Your task to perform on an android device: toggle location history Image 0: 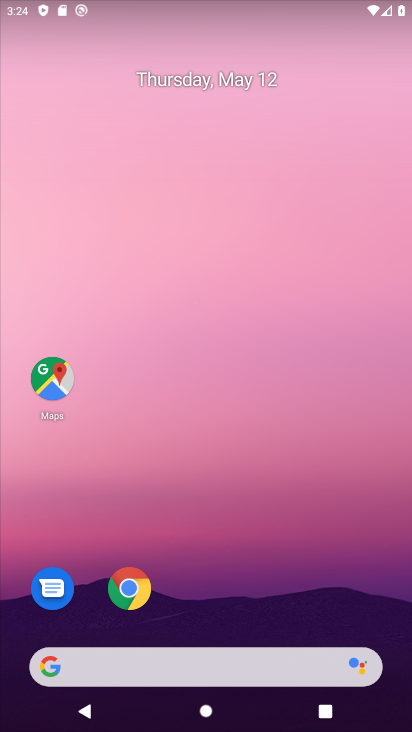
Step 0: drag from (248, 564) to (352, 142)
Your task to perform on an android device: toggle location history Image 1: 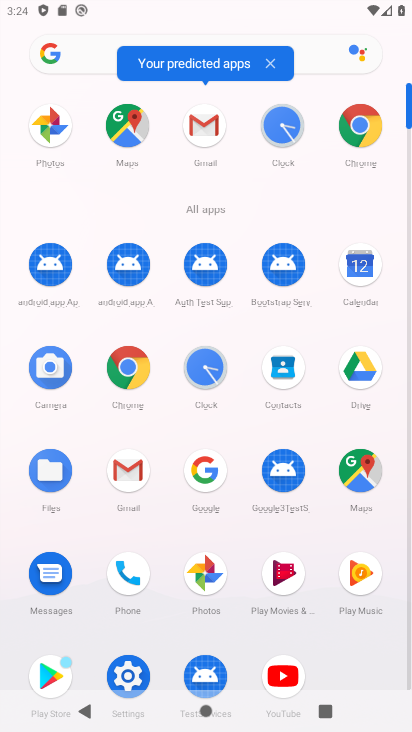
Step 1: drag from (153, 659) to (204, 379)
Your task to perform on an android device: toggle location history Image 2: 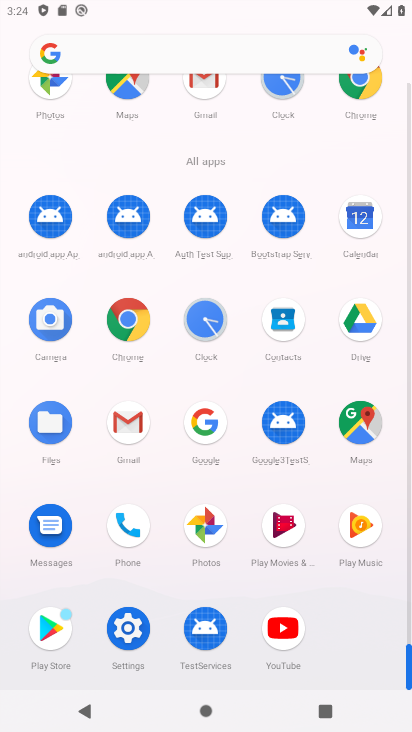
Step 2: click (137, 616)
Your task to perform on an android device: toggle location history Image 3: 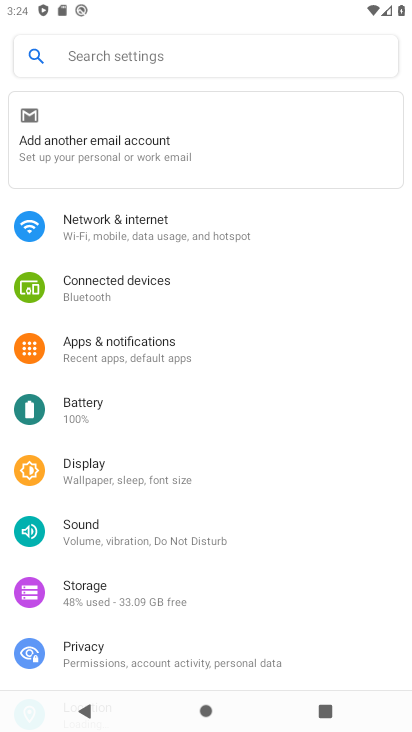
Step 3: drag from (151, 629) to (222, 330)
Your task to perform on an android device: toggle location history Image 4: 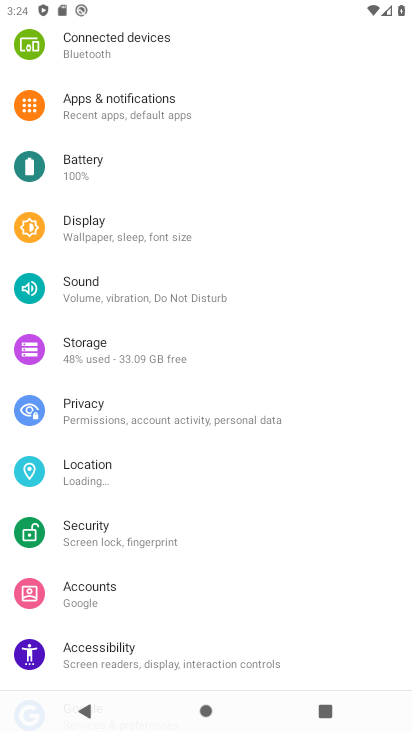
Step 4: click (126, 462)
Your task to perform on an android device: toggle location history Image 5: 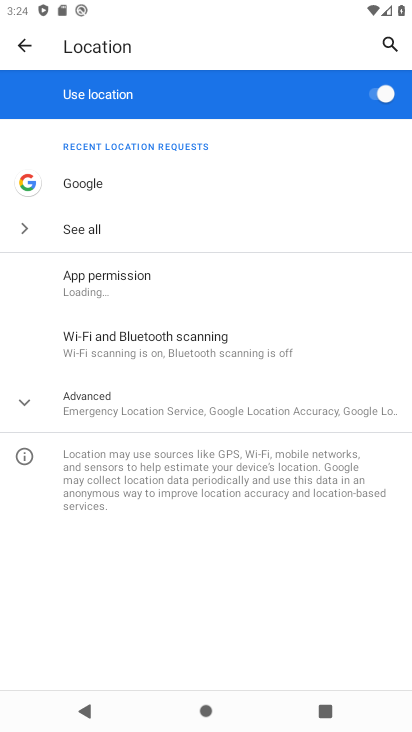
Step 5: click (202, 391)
Your task to perform on an android device: toggle location history Image 6: 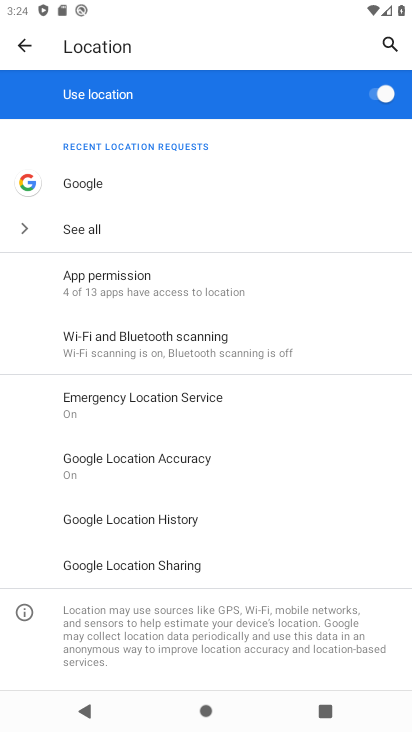
Step 6: click (207, 520)
Your task to perform on an android device: toggle location history Image 7: 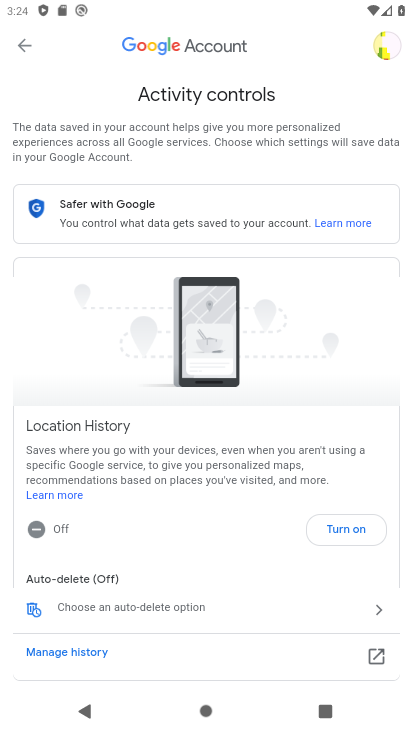
Step 7: drag from (232, 534) to (274, 304)
Your task to perform on an android device: toggle location history Image 8: 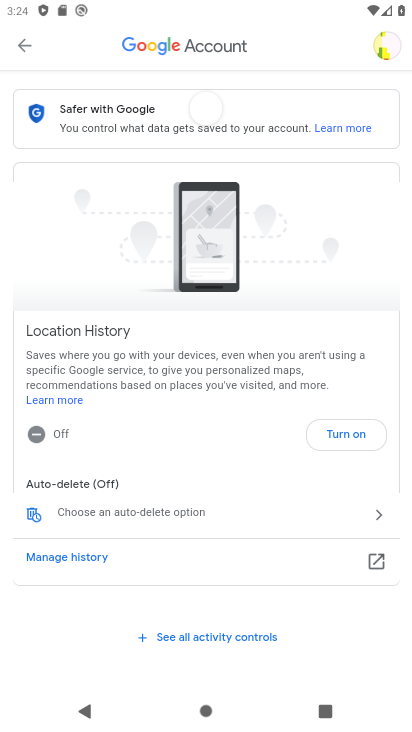
Step 8: click (366, 434)
Your task to perform on an android device: toggle location history Image 9: 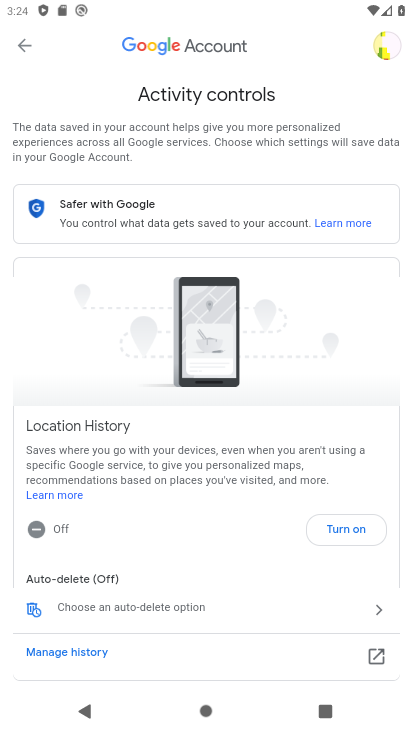
Step 9: click (347, 537)
Your task to perform on an android device: toggle location history Image 10: 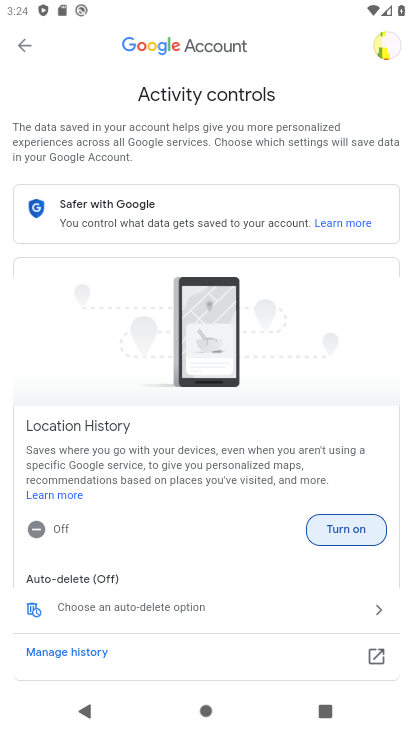
Step 10: click (352, 536)
Your task to perform on an android device: toggle location history Image 11: 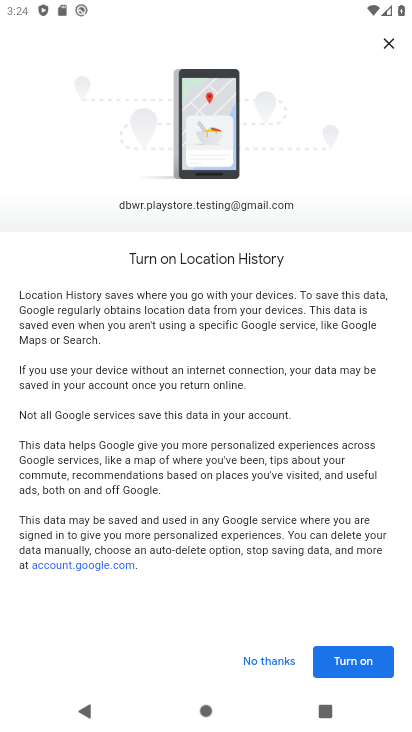
Step 11: click (370, 637)
Your task to perform on an android device: toggle location history Image 12: 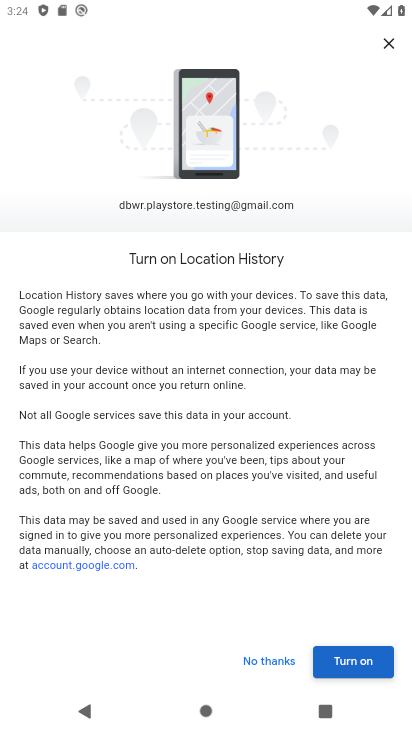
Step 12: click (381, 669)
Your task to perform on an android device: toggle location history Image 13: 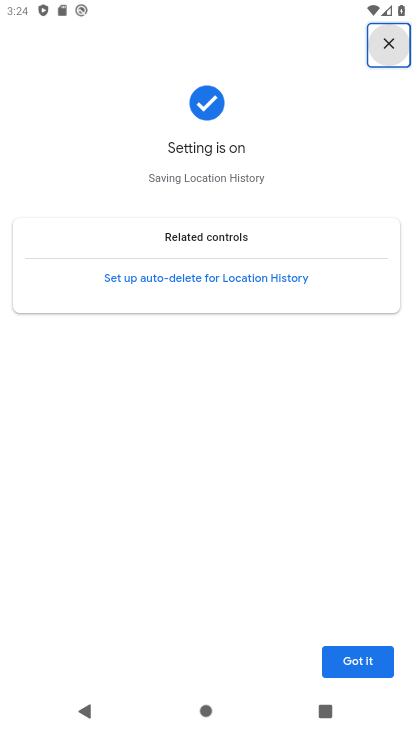
Step 13: click (381, 661)
Your task to perform on an android device: toggle location history Image 14: 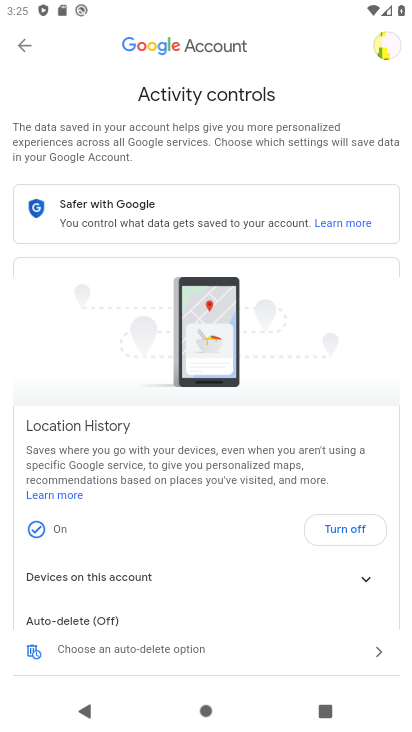
Step 14: task complete